Your task to perform on an android device: What's the weather going to be tomorrow? Image 0: 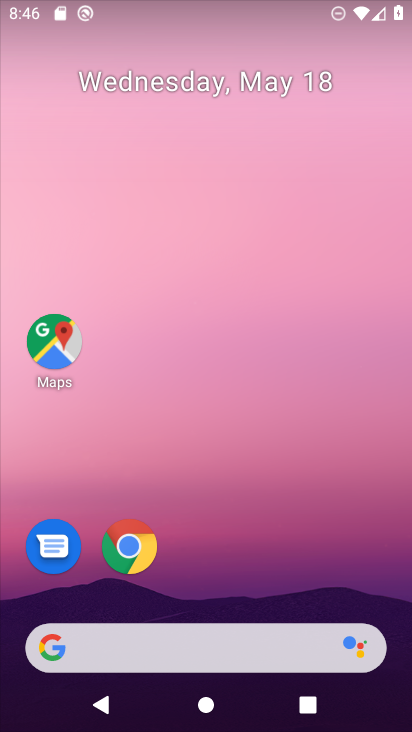
Step 0: drag from (288, 662) to (350, 273)
Your task to perform on an android device: What's the weather going to be tomorrow? Image 1: 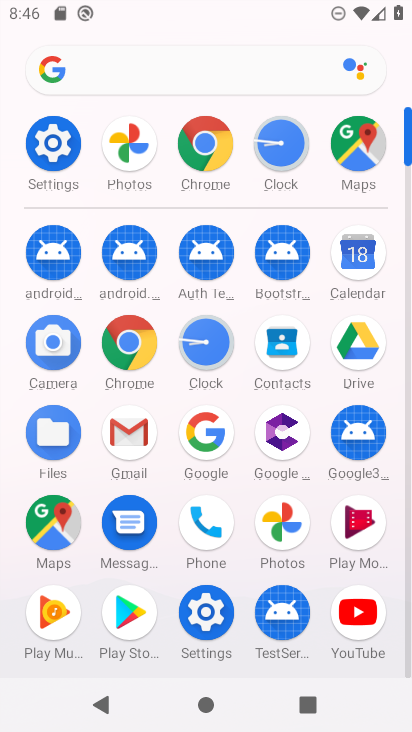
Step 1: click (153, 85)
Your task to perform on an android device: What's the weather going to be tomorrow? Image 2: 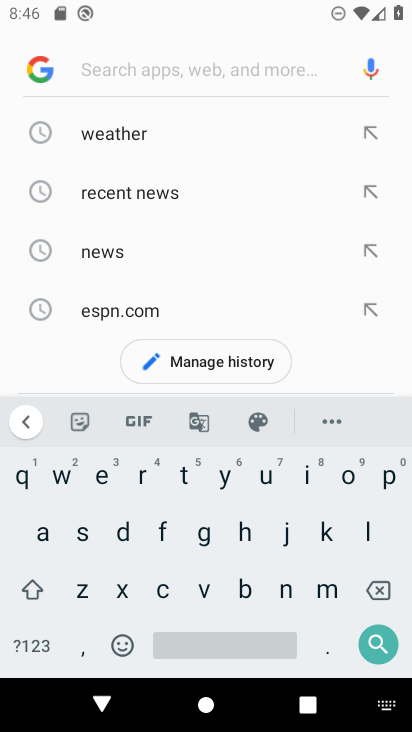
Step 2: click (154, 132)
Your task to perform on an android device: What's the weather going to be tomorrow? Image 3: 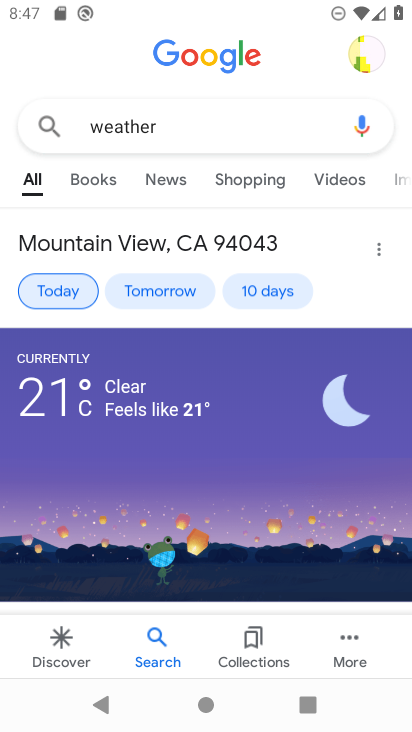
Step 3: click (155, 297)
Your task to perform on an android device: What's the weather going to be tomorrow? Image 4: 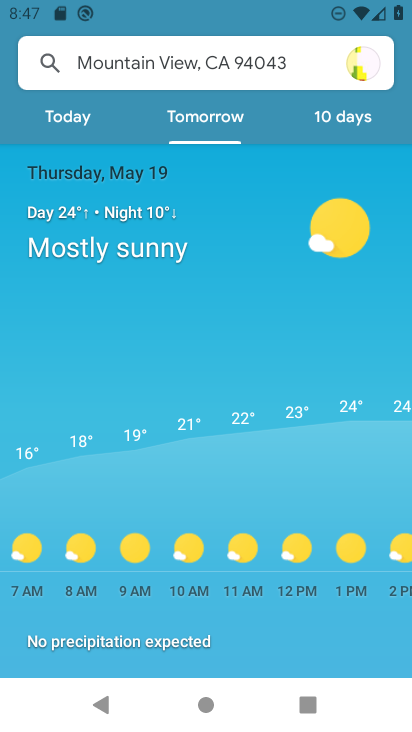
Step 4: task complete